Your task to perform on an android device: turn off notifications in google photos Image 0: 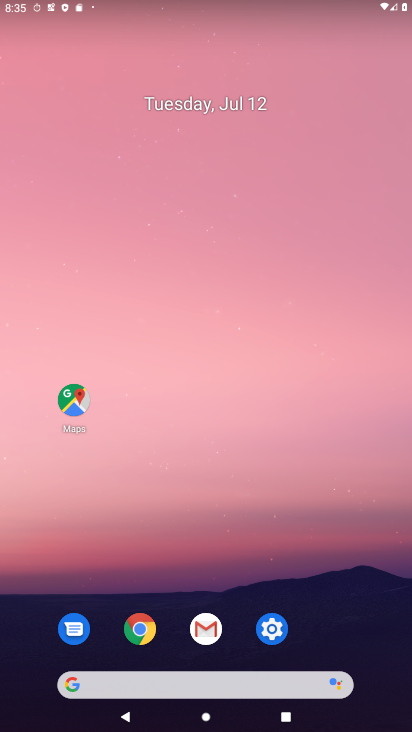
Step 0: drag from (225, 691) to (136, 186)
Your task to perform on an android device: turn off notifications in google photos Image 1: 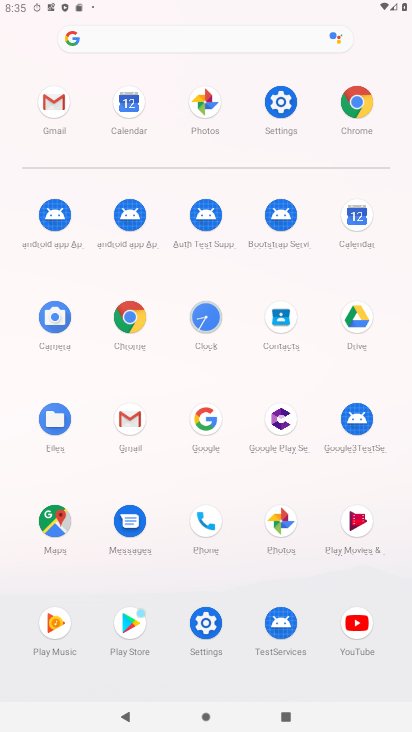
Step 1: click (280, 516)
Your task to perform on an android device: turn off notifications in google photos Image 2: 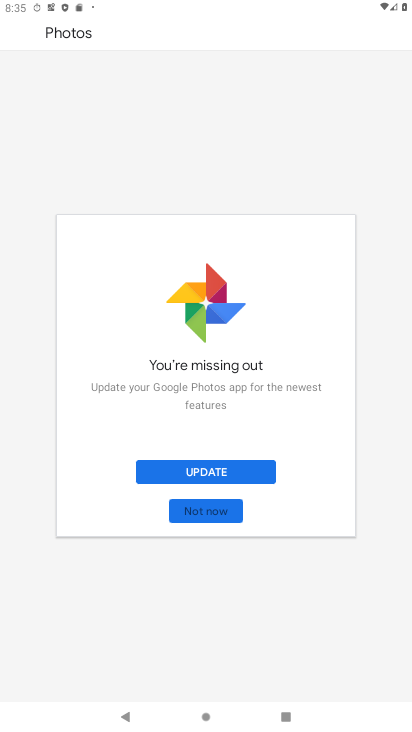
Step 2: click (191, 481)
Your task to perform on an android device: turn off notifications in google photos Image 3: 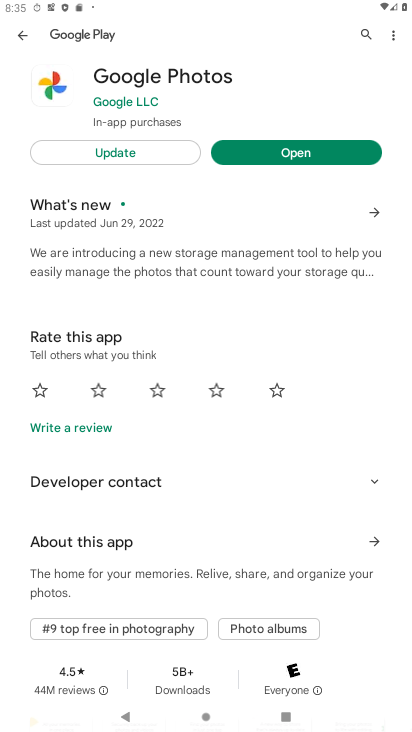
Step 3: click (112, 155)
Your task to perform on an android device: turn off notifications in google photos Image 4: 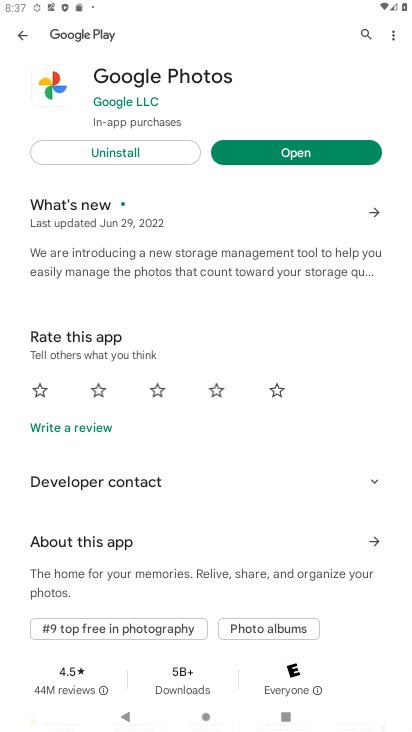
Step 4: click (290, 144)
Your task to perform on an android device: turn off notifications in google photos Image 5: 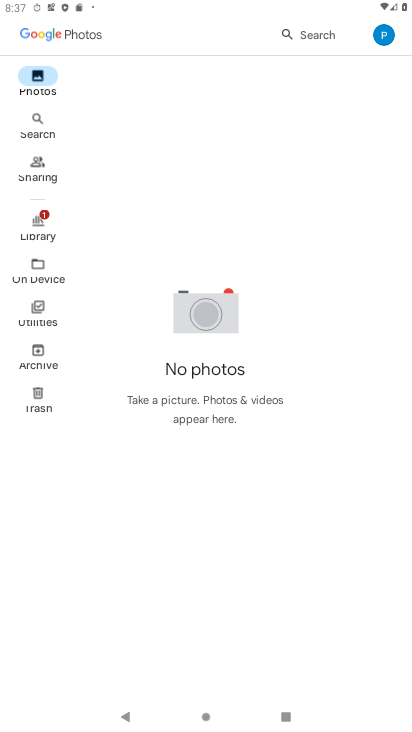
Step 5: click (372, 33)
Your task to perform on an android device: turn off notifications in google photos Image 6: 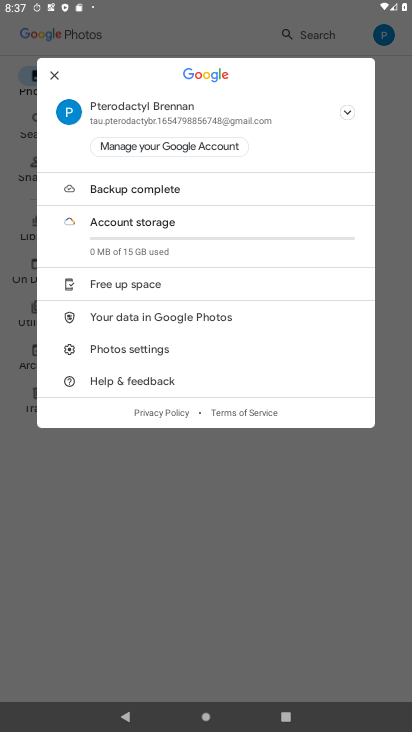
Step 6: click (121, 356)
Your task to perform on an android device: turn off notifications in google photos Image 7: 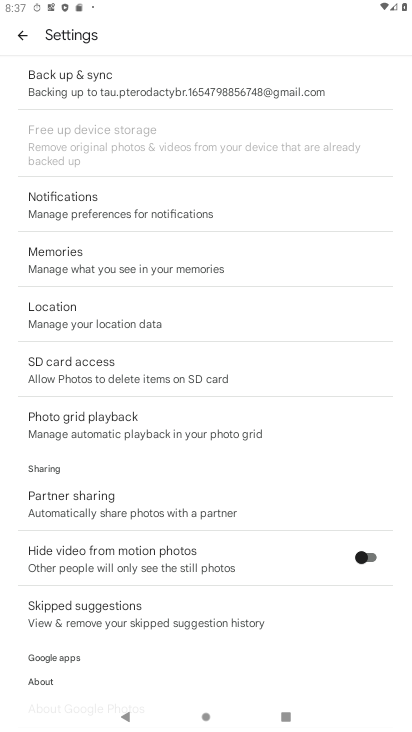
Step 7: click (127, 223)
Your task to perform on an android device: turn off notifications in google photos Image 8: 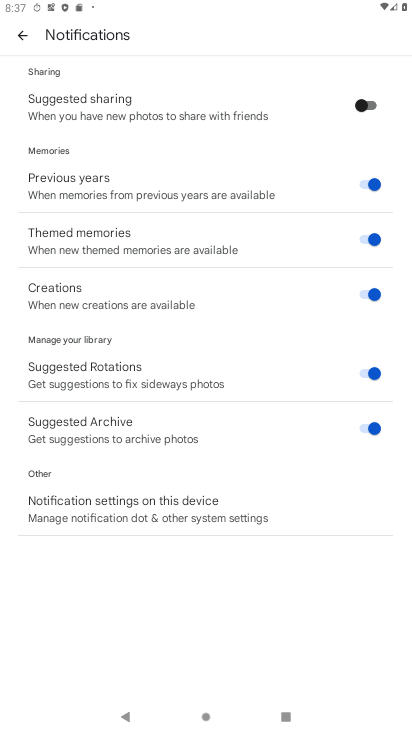
Step 8: click (90, 501)
Your task to perform on an android device: turn off notifications in google photos Image 9: 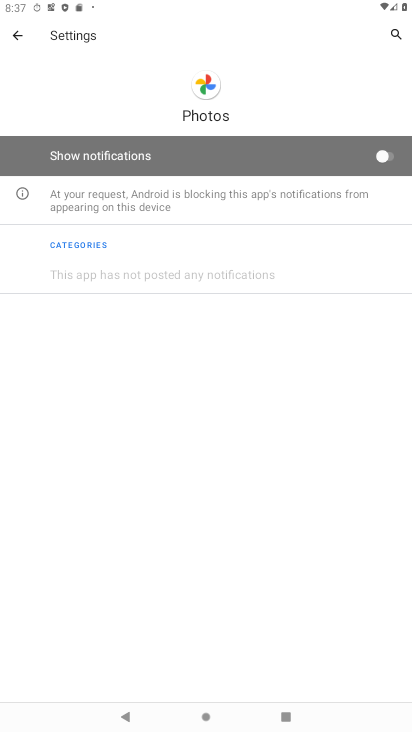
Step 9: click (389, 156)
Your task to perform on an android device: turn off notifications in google photos Image 10: 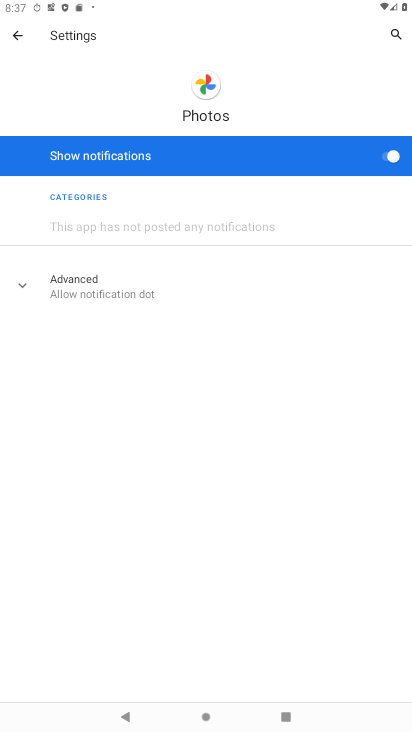
Step 10: click (391, 155)
Your task to perform on an android device: turn off notifications in google photos Image 11: 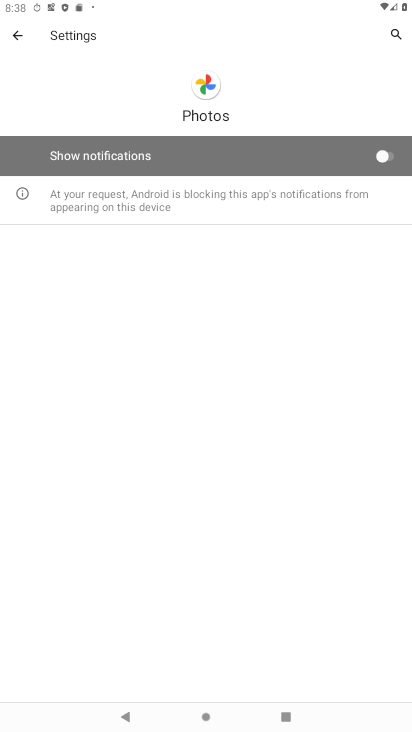
Step 11: task complete